Your task to perform on an android device: Open Amazon Image 0: 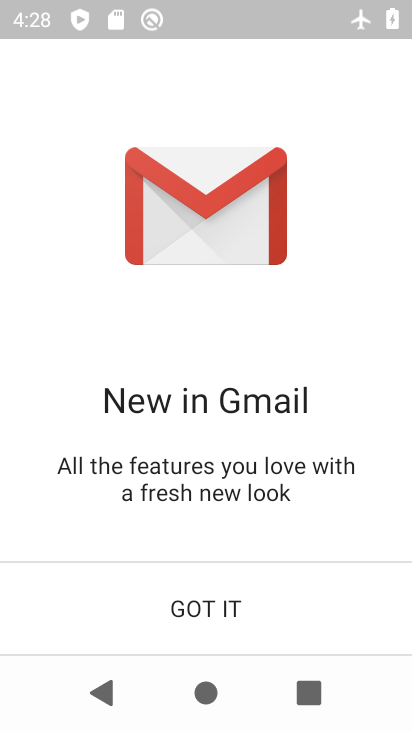
Step 0: press home button
Your task to perform on an android device: Open Amazon Image 1: 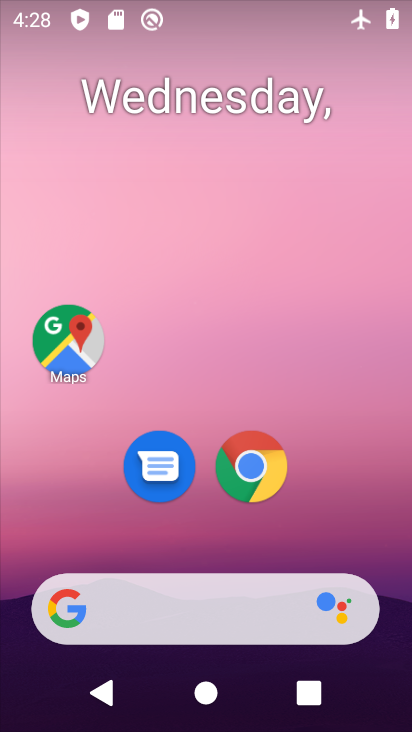
Step 1: click (253, 466)
Your task to perform on an android device: Open Amazon Image 2: 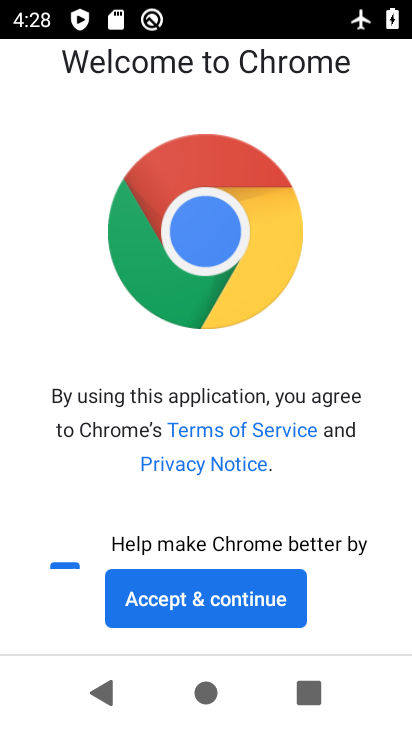
Step 2: click (203, 601)
Your task to perform on an android device: Open Amazon Image 3: 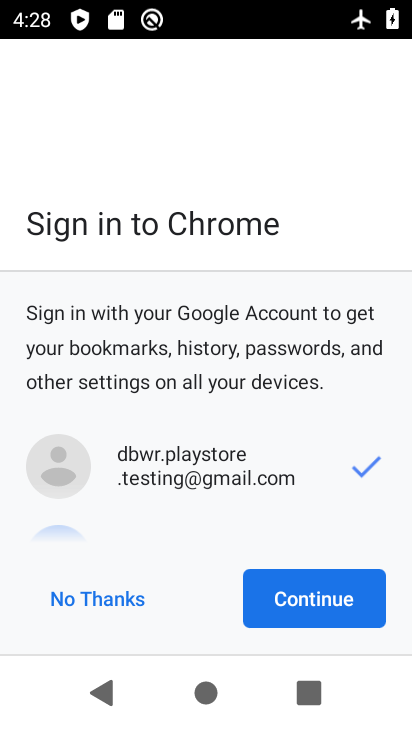
Step 3: click (311, 593)
Your task to perform on an android device: Open Amazon Image 4: 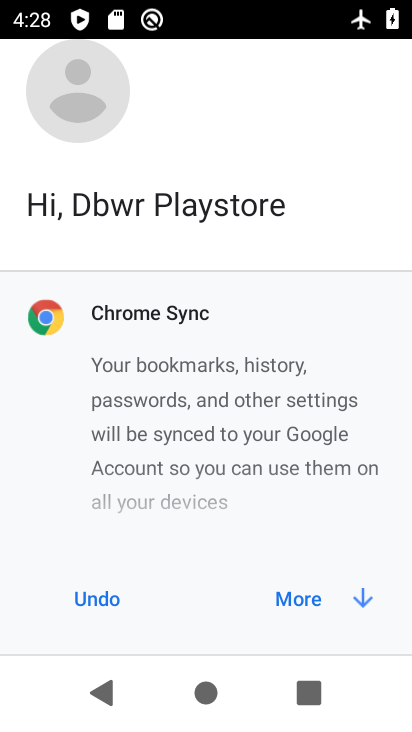
Step 4: click (296, 601)
Your task to perform on an android device: Open Amazon Image 5: 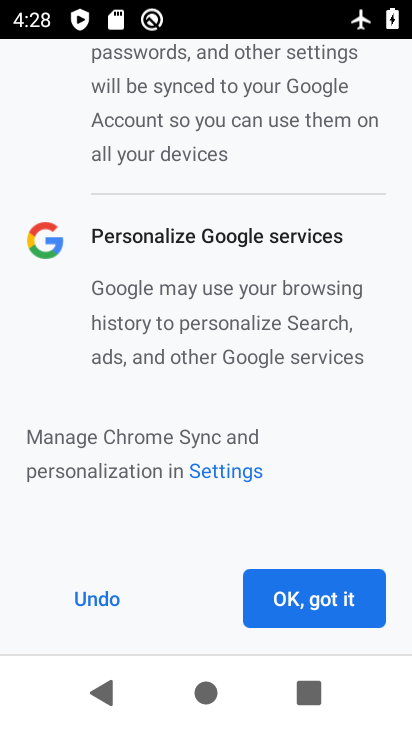
Step 5: click (296, 601)
Your task to perform on an android device: Open Amazon Image 6: 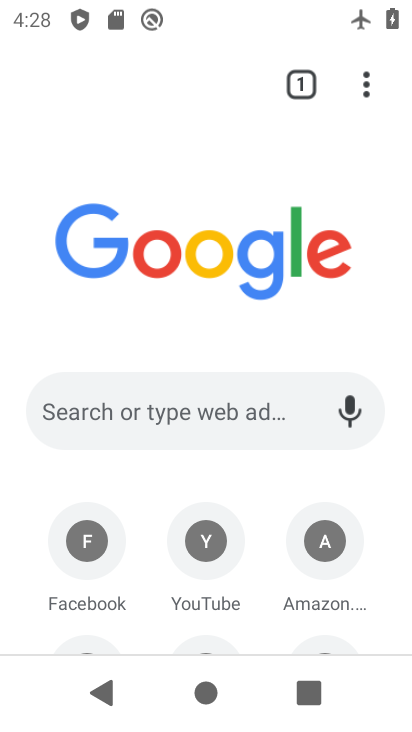
Step 6: click (323, 545)
Your task to perform on an android device: Open Amazon Image 7: 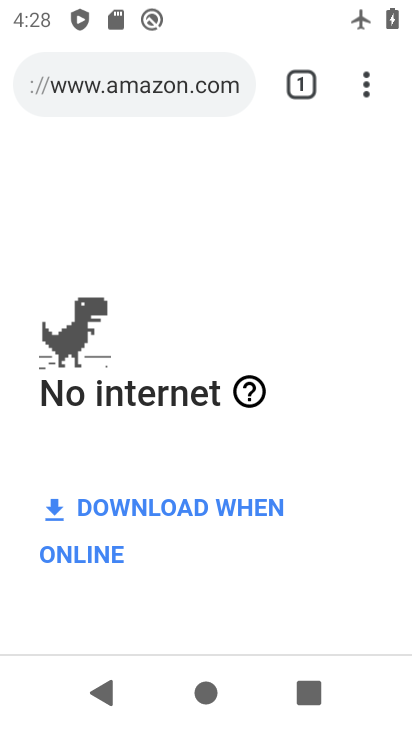
Step 7: task complete